Your task to perform on an android device: Open the calendar and show me this week's events? Image 0: 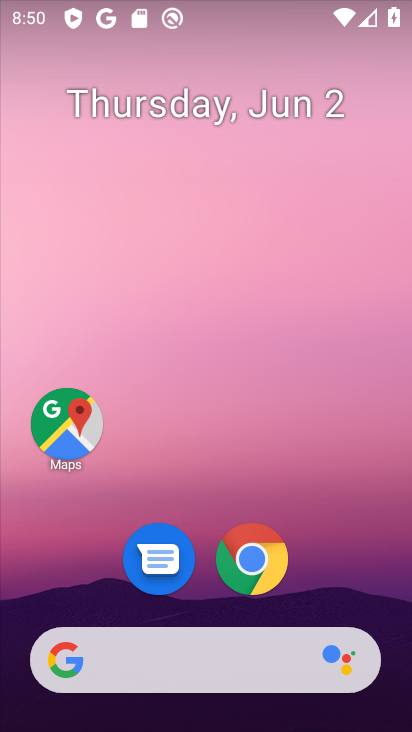
Step 0: drag from (159, 723) to (248, 441)
Your task to perform on an android device: Open the calendar and show me this week's events? Image 1: 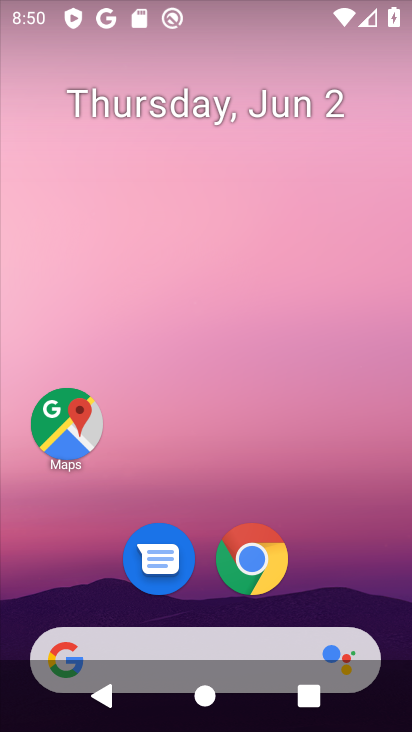
Step 1: drag from (229, 458) to (303, 113)
Your task to perform on an android device: Open the calendar and show me this week's events? Image 2: 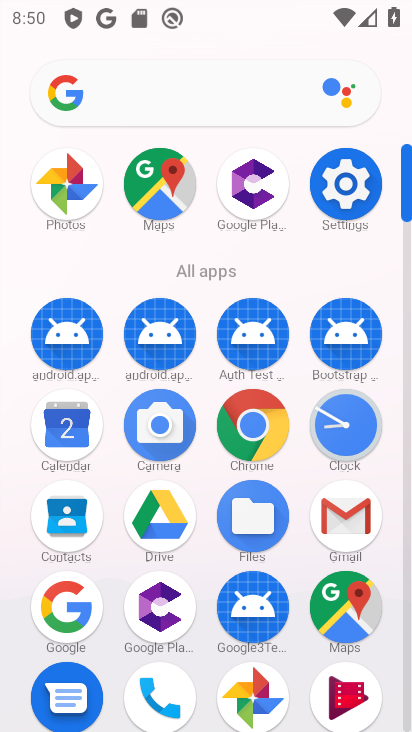
Step 2: click (59, 439)
Your task to perform on an android device: Open the calendar and show me this week's events? Image 3: 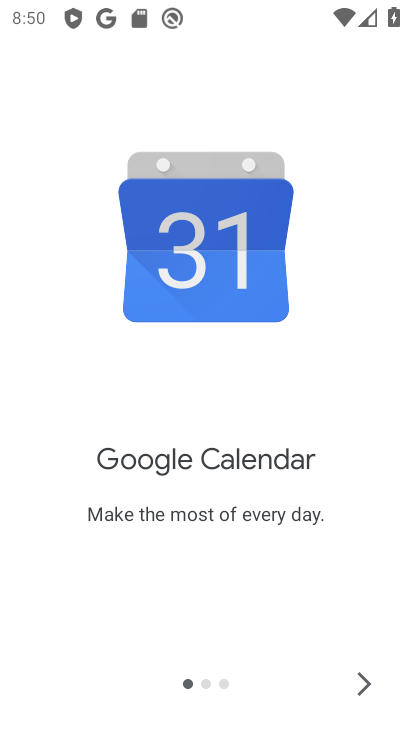
Step 3: click (366, 683)
Your task to perform on an android device: Open the calendar and show me this week's events? Image 4: 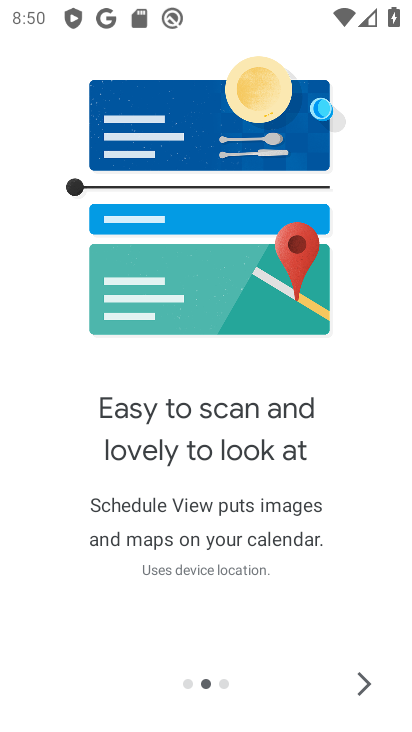
Step 4: click (366, 683)
Your task to perform on an android device: Open the calendar and show me this week's events? Image 5: 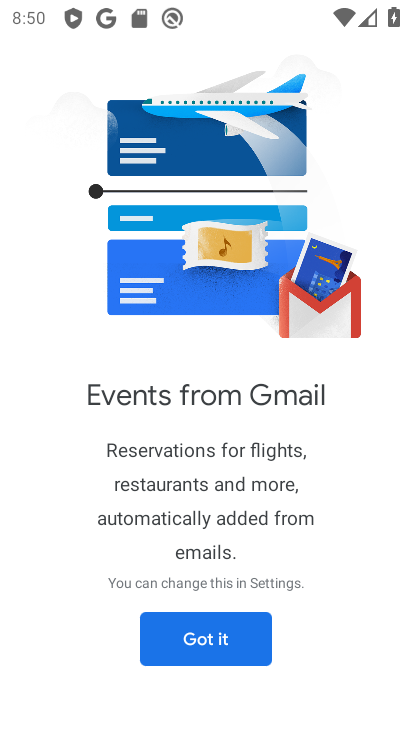
Step 5: click (155, 648)
Your task to perform on an android device: Open the calendar and show me this week's events? Image 6: 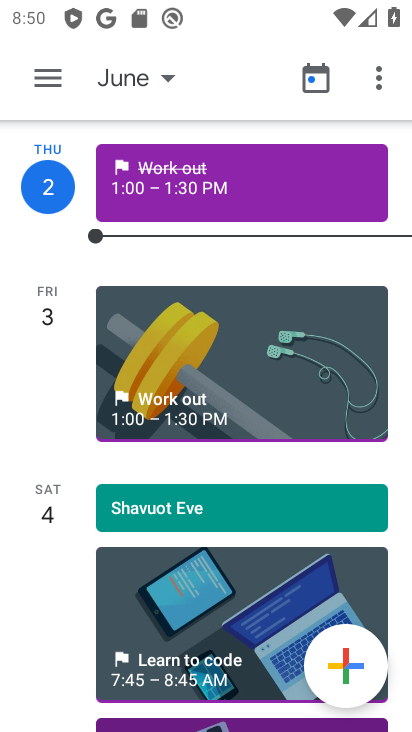
Step 6: click (52, 91)
Your task to perform on an android device: Open the calendar and show me this week's events? Image 7: 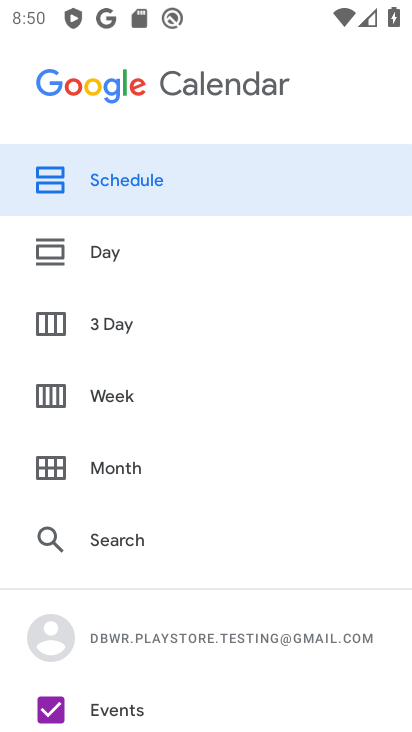
Step 7: drag from (151, 676) to (204, 329)
Your task to perform on an android device: Open the calendar and show me this week's events? Image 8: 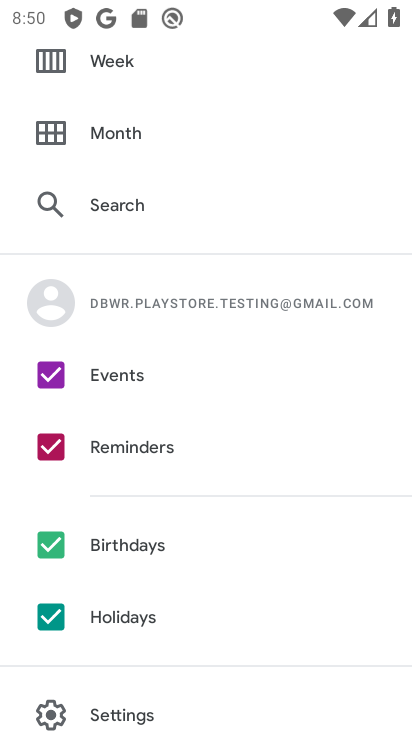
Step 8: click (65, 618)
Your task to perform on an android device: Open the calendar and show me this week's events? Image 9: 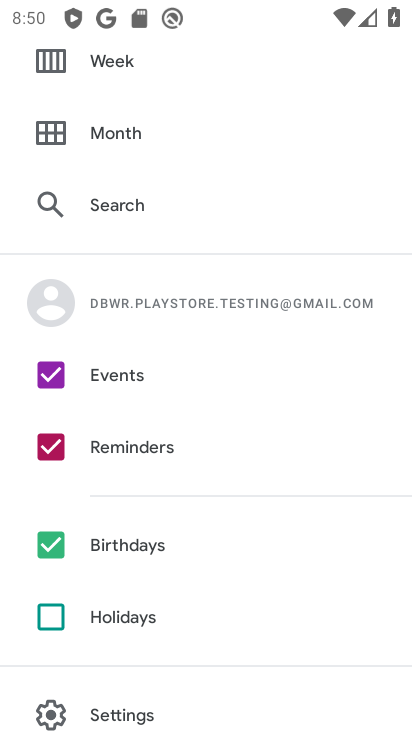
Step 9: click (52, 556)
Your task to perform on an android device: Open the calendar and show me this week's events? Image 10: 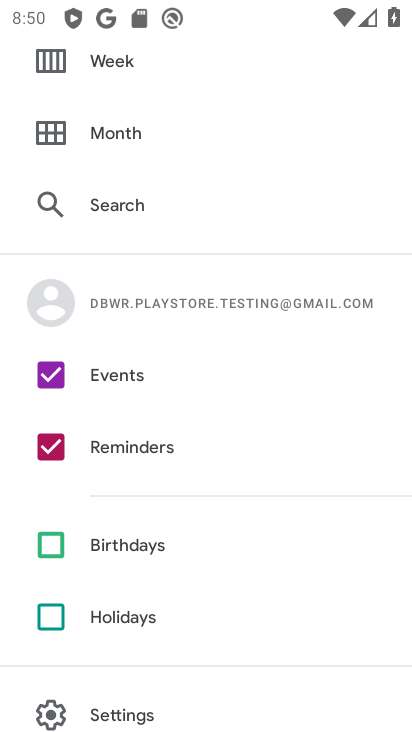
Step 10: click (67, 455)
Your task to perform on an android device: Open the calendar and show me this week's events? Image 11: 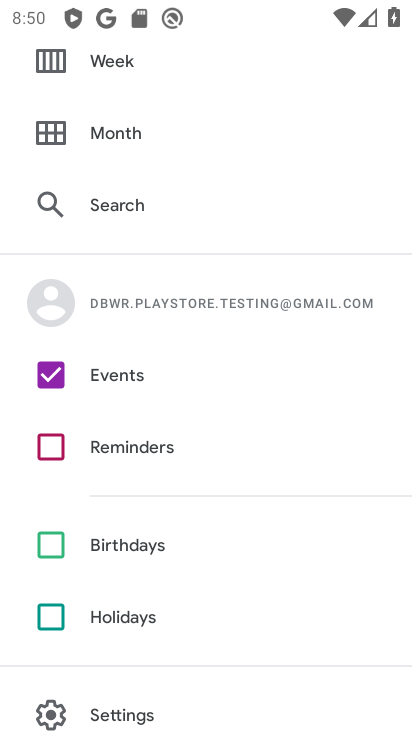
Step 11: drag from (213, 240) to (244, 728)
Your task to perform on an android device: Open the calendar and show me this week's events? Image 12: 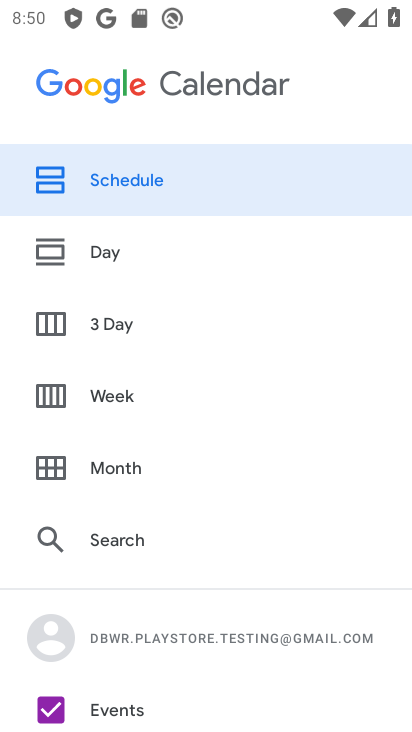
Step 12: click (141, 393)
Your task to perform on an android device: Open the calendar and show me this week's events? Image 13: 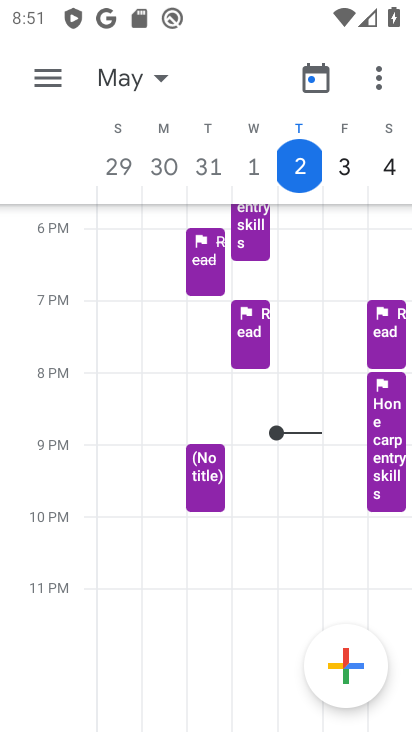
Step 13: task complete